Your task to perform on an android device: turn off improve location accuracy Image 0: 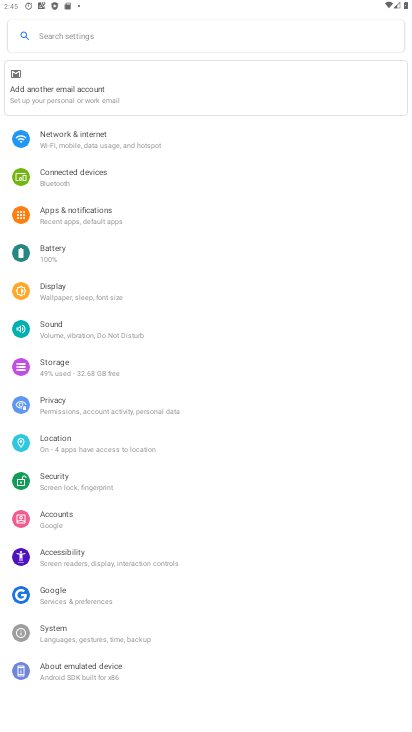
Step 0: click (91, 441)
Your task to perform on an android device: turn off improve location accuracy Image 1: 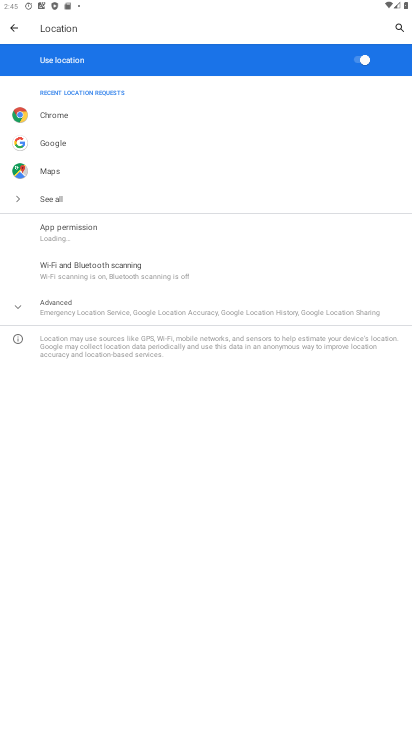
Step 1: click (105, 313)
Your task to perform on an android device: turn off improve location accuracy Image 2: 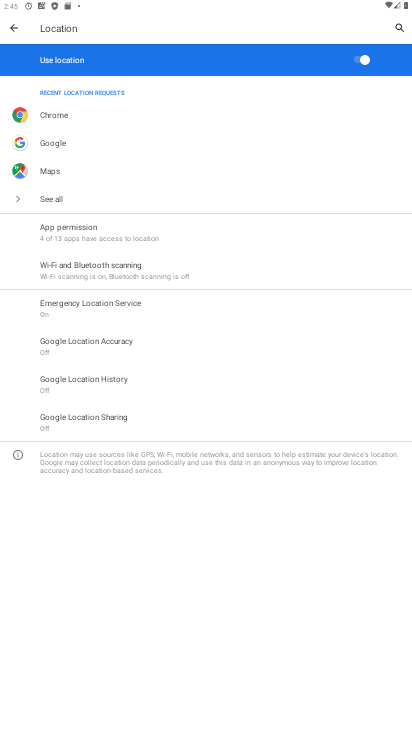
Step 2: click (119, 346)
Your task to perform on an android device: turn off improve location accuracy Image 3: 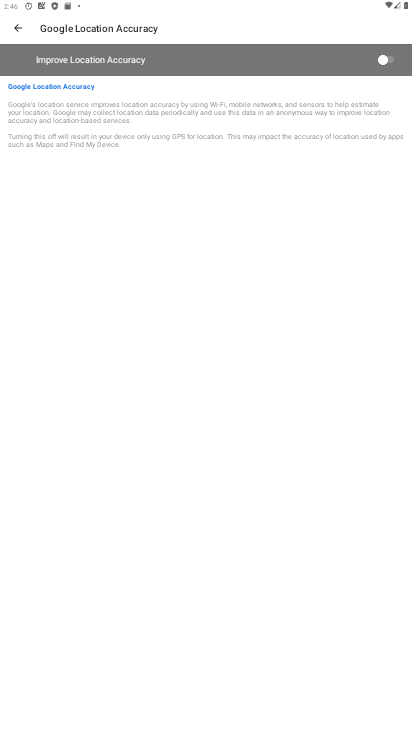
Step 3: task complete